Your task to perform on an android device: Go to location settings Image 0: 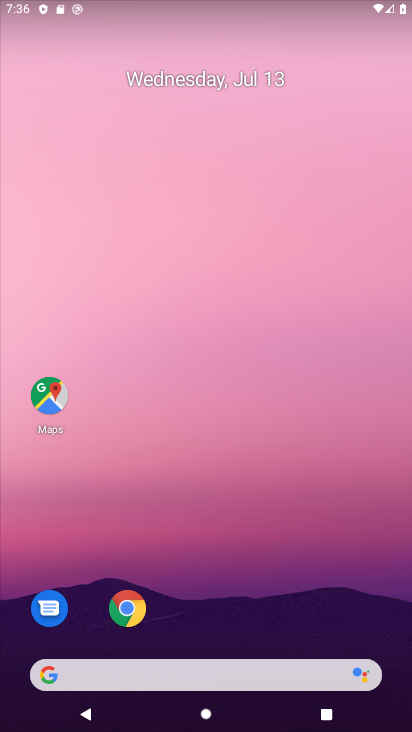
Step 0: drag from (215, 641) to (200, 102)
Your task to perform on an android device: Go to location settings Image 1: 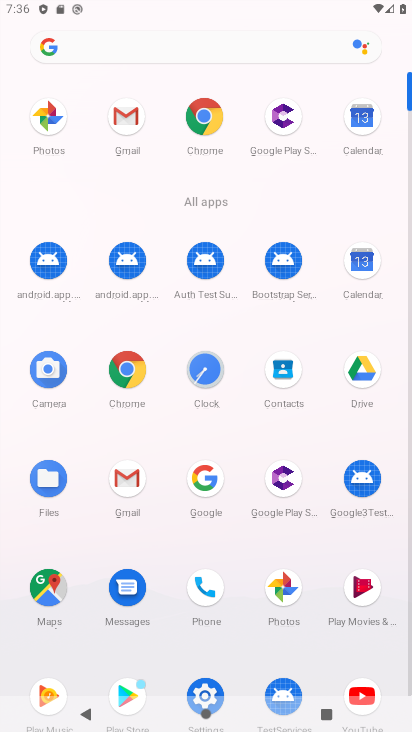
Step 1: click (198, 686)
Your task to perform on an android device: Go to location settings Image 2: 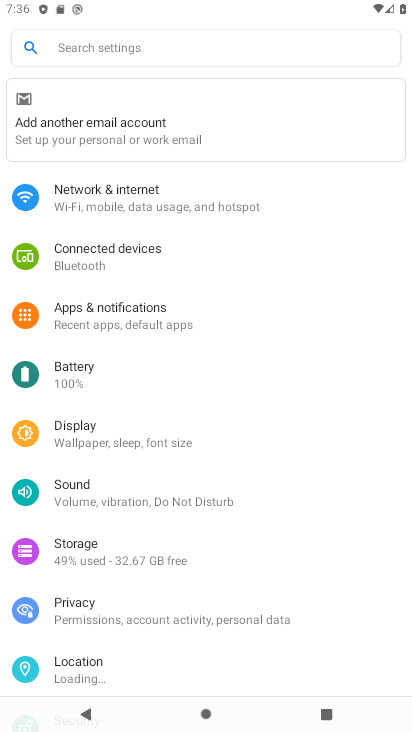
Step 2: click (93, 669)
Your task to perform on an android device: Go to location settings Image 3: 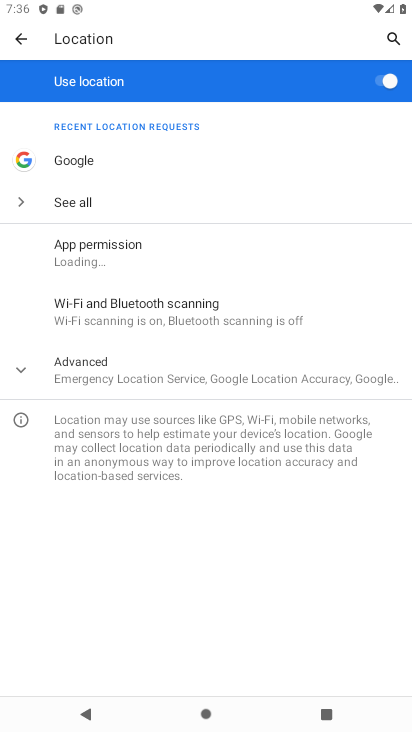
Step 3: click (78, 380)
Your task to perform on an android device: Go to location settings Image 4: 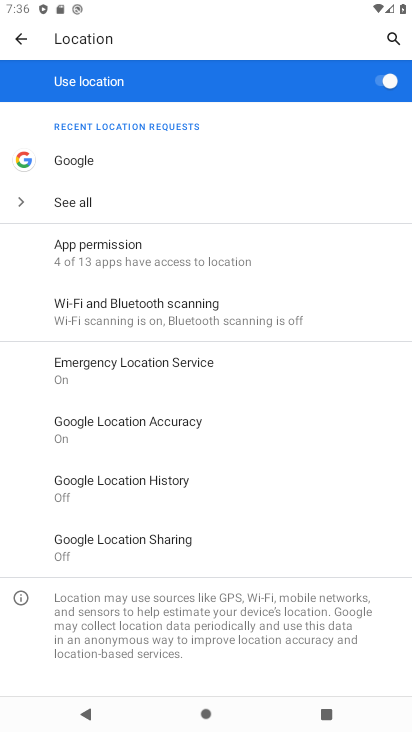
Step 4: task complete